Your task to perform on an android device: change notification settings in the gmail app Image 0: 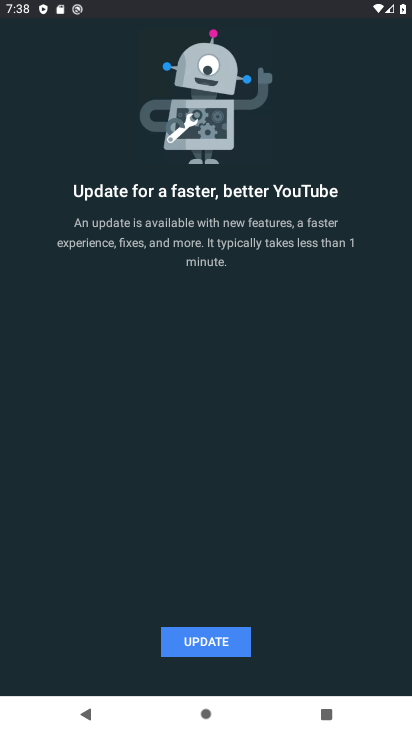
Step 0: press back button
Your task to perform on an android device: change notification settings in the gmail app Image 1: 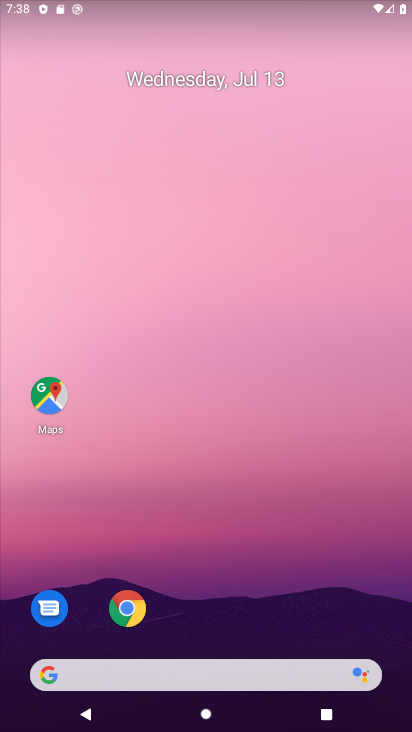
Step 1: drag from (245, 641) to (163, 699)
Your task to perform on an android device: change notification settings in the gmail app Image 2: 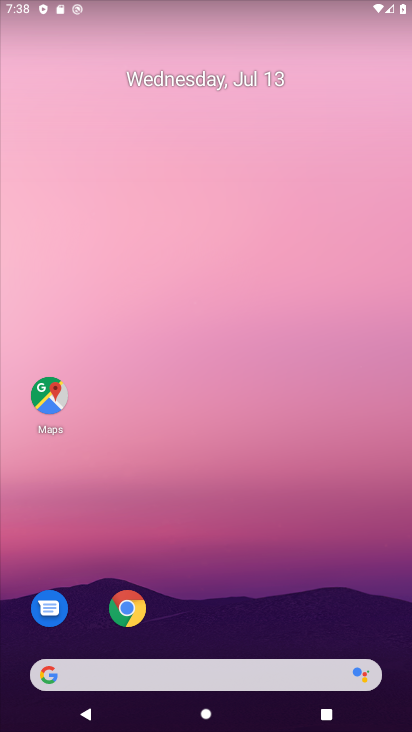
Step 2: drag from (202, 635) to (176, 71)
Your task to perform on an android device: change notification settings in the gmail app Image 3: 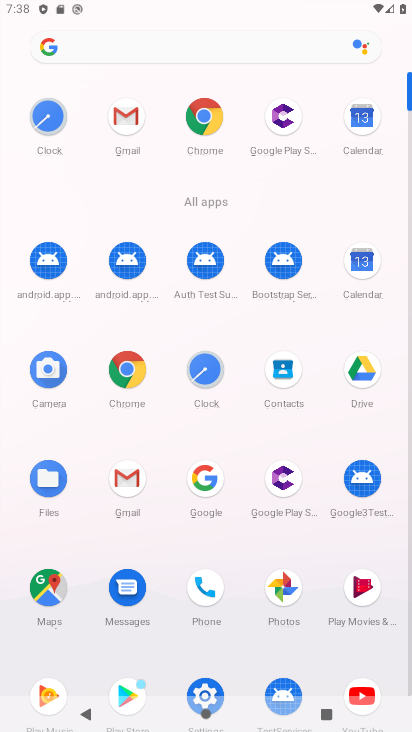
Step 3: click (120, 494)
Your task to perform on an android device: change notification settings in the gmail app Image 4: 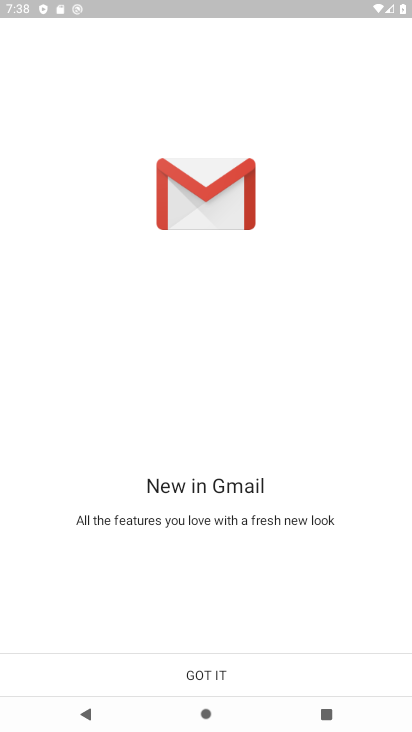
Step 4: click (203, 664)
Your task to perform on an android device: change notification settings in the gmail app Image 5: 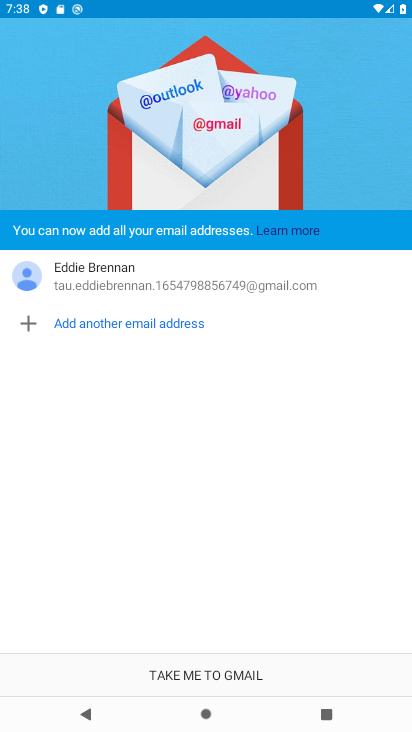
Step 5: click (204, 670)
Your task to perform on an android device: change notification settings in the gmail app Image 6: 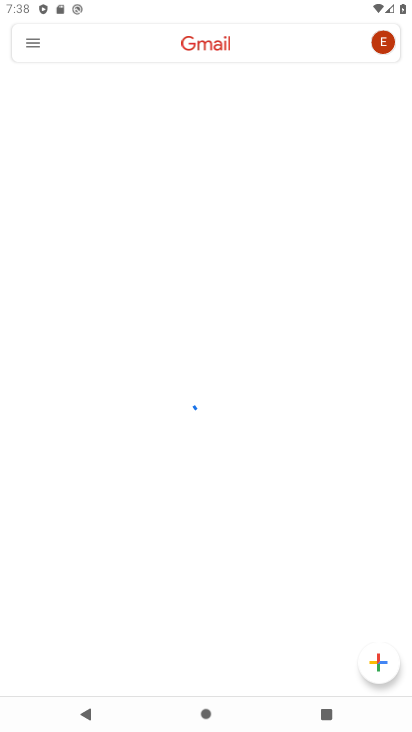
Step 6: click (27, 38)
Your task to perform on an android device: change notification settings in the gmail app Image 7: 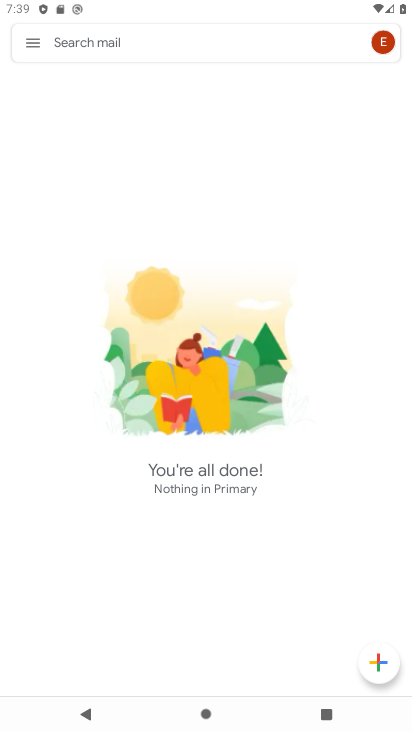
Step 7: click (27, 38)
Your task to perform on an android device: change notification settings in the gmail app Image 8: 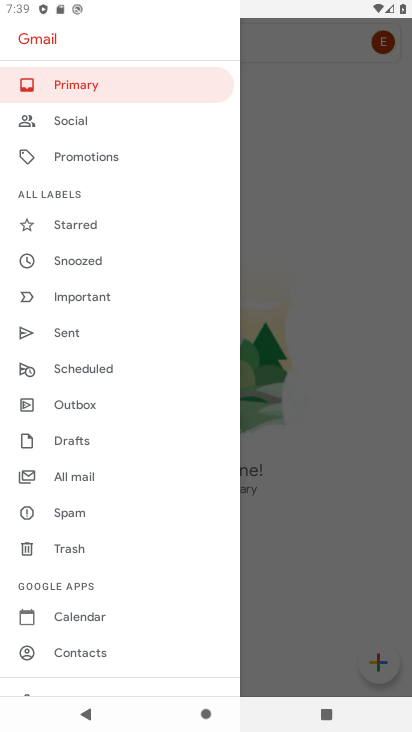
Step 8: drag from (136, 590) to (152, 186)
Your task to perform on an android device: change notification settings in the gmail app Image 9: 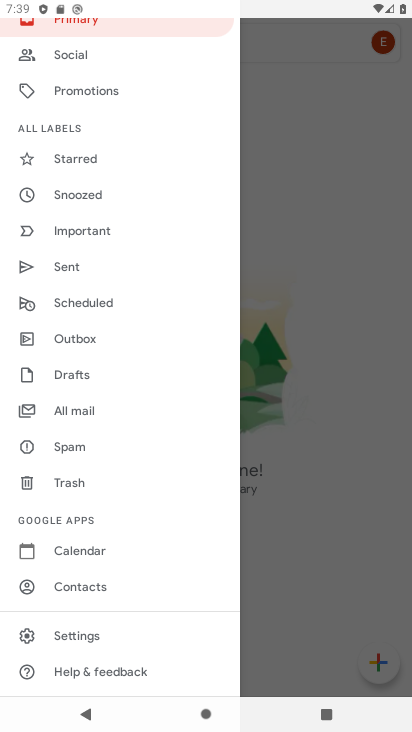
Step 9: click (98, 640)
Your task to perform on an android device: change notification settings in the gmail app Image 10: 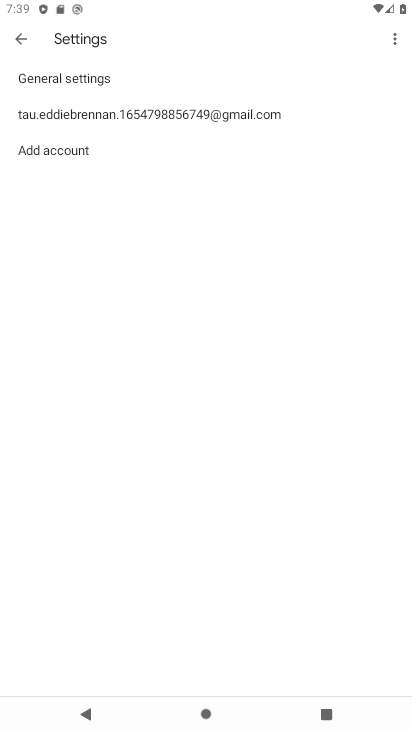
Step 10: click (50, 80)
Your task to perform on an android device: change notification settings in the gmail app Image 11: 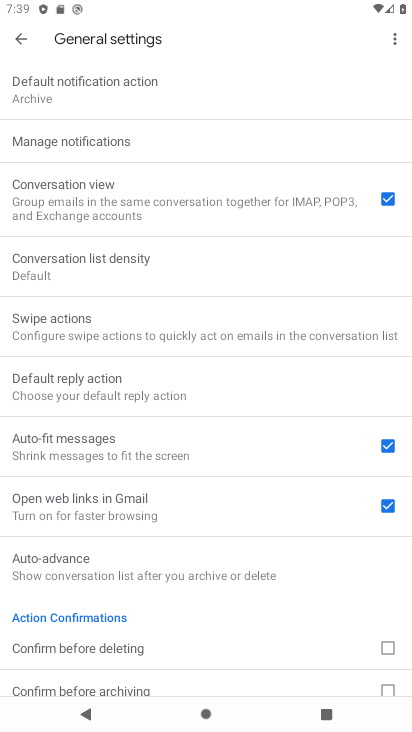
Step 11: click (96, 141)
Your task to perform on an android device: change notification settings in the gmail app Image 12: 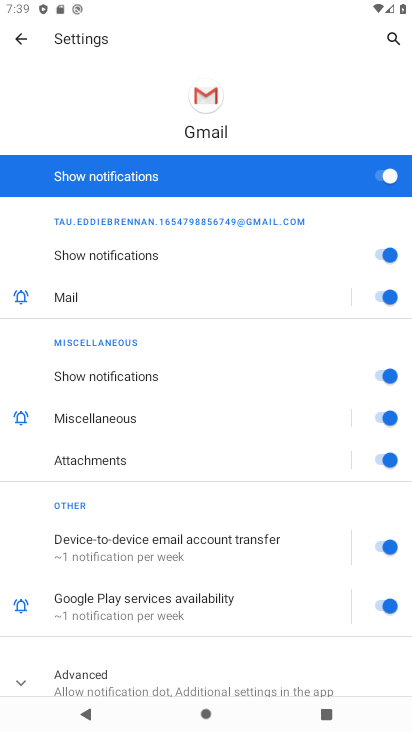
Step 12: click (387, 185)
Your task to perform on an android device: change notification settings in the gmail app Image 13: 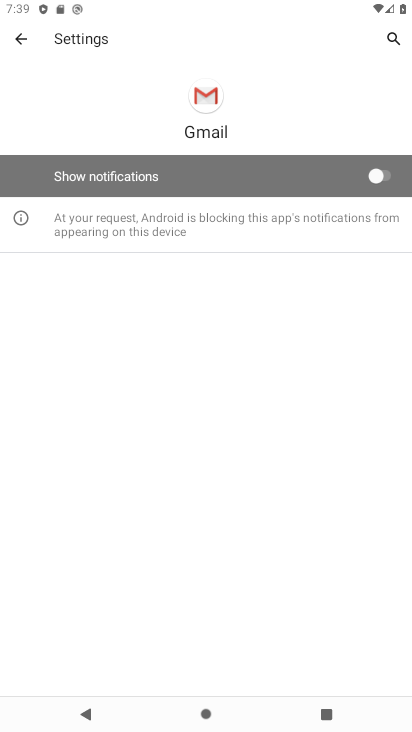
Step 13: task complete